Your task to perform on an android device: delete browsing data in the chrome app Image 0: 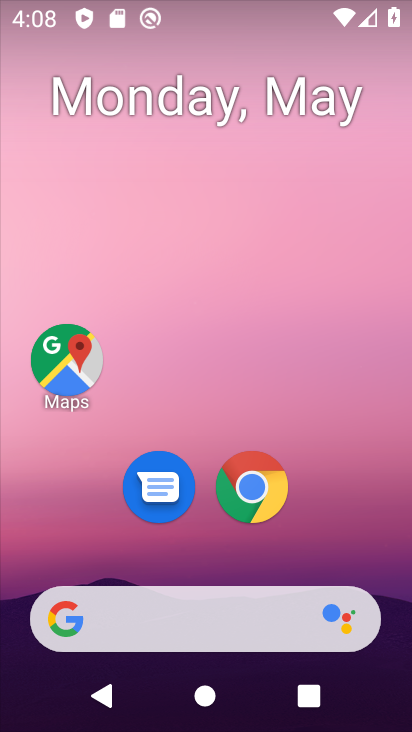
Step 0: click (252, 515)
Your task to perform on an android device: delete browsing data in the chrome app Image 1: 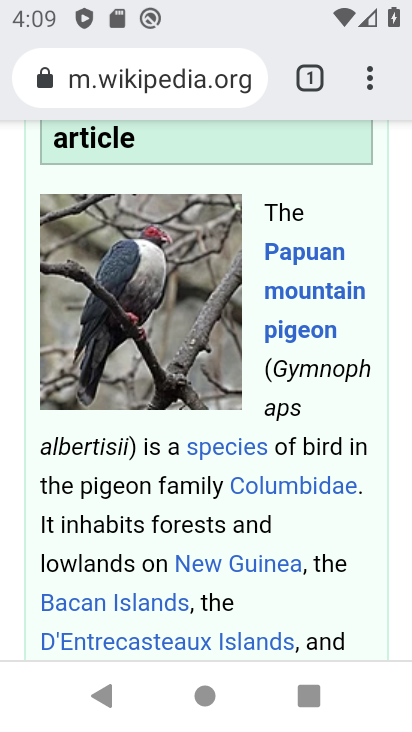
Step 1: click (368, 67)
Your task to perform on an android device: delete browsing data in the chrome app Image 2: 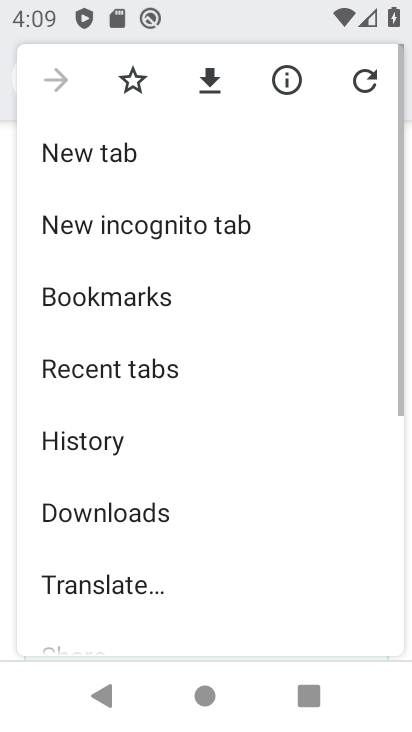
Step 2: click (101, 438)
Your task to perform on an android device: delete browsing data in the chrome app Image 3: 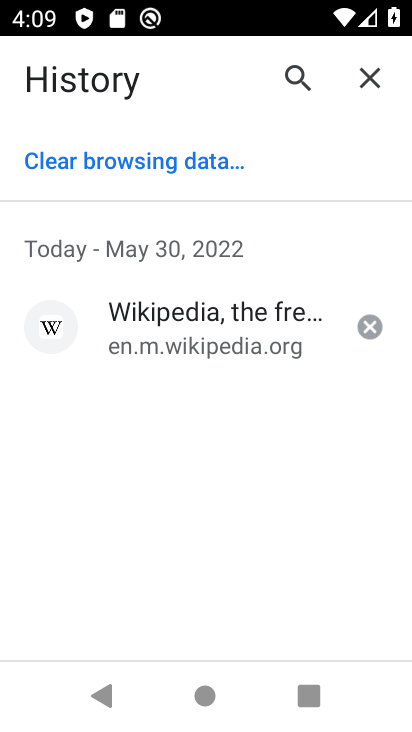
Step 3: click (142, 151)
Your task to perform on an android device: delete browsing data in the chrome app Image 4: 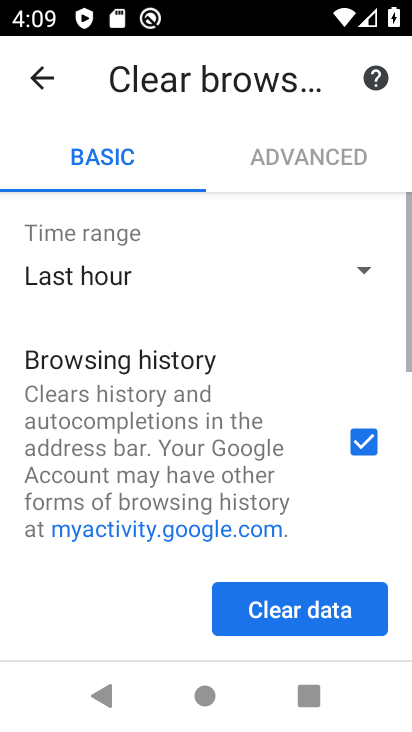
Step 4: drag from (308, 472) to (269, 168)
Your task to perform on an android device: delete browsing data in the chrome app Image 5: 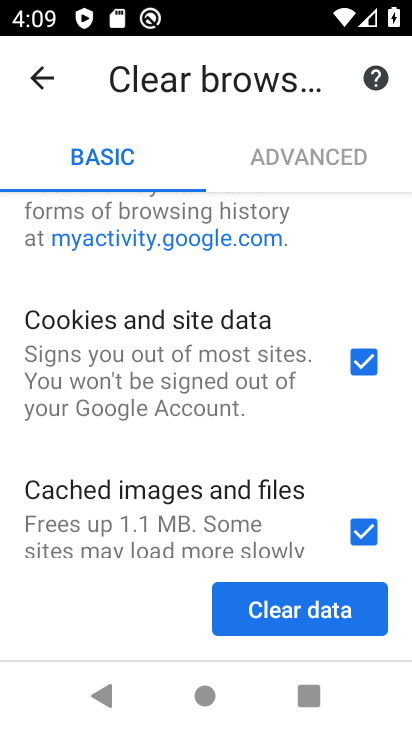
Step 5: click (365, 365)
Your task to perform on an android device: delete browsing data in the chrome app Image 6: 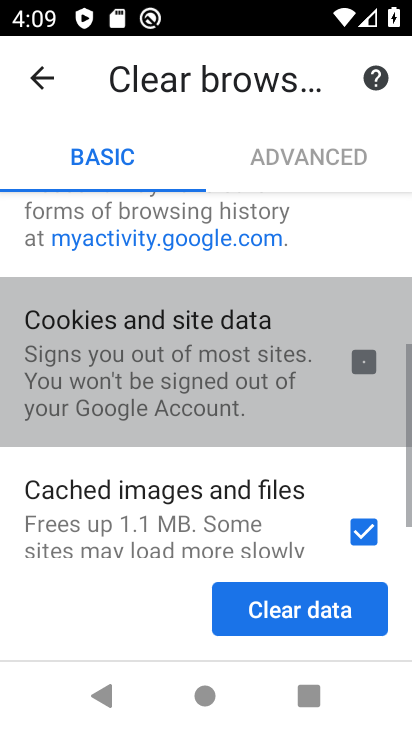
Step 6: click (366, 535)
Your task to perform on an android device: delete browsing data in the chrome app Image 7: 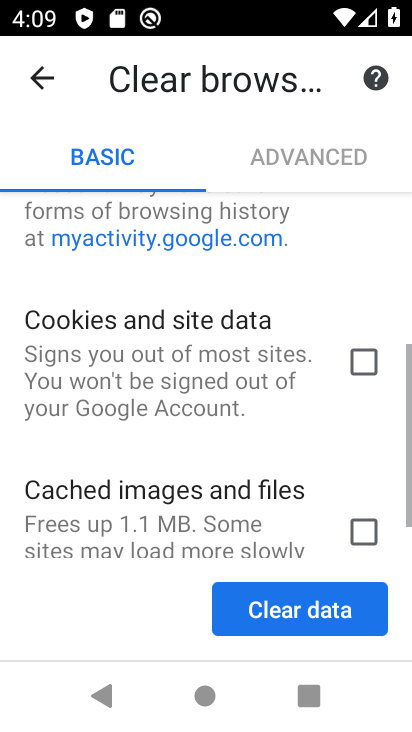
Step 7: click (331, 623)
Your task to perform on an android device: delete browsing data in the chrome app Image 8: 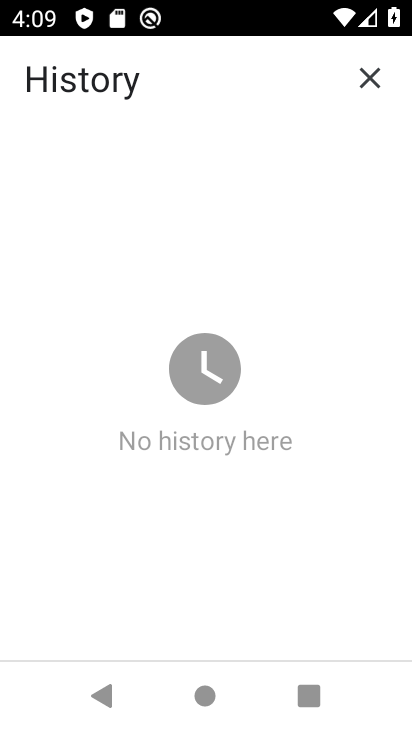
Step 8: task complete